Your task to perform on an android device: Open Chrome and go to settings Image 0: 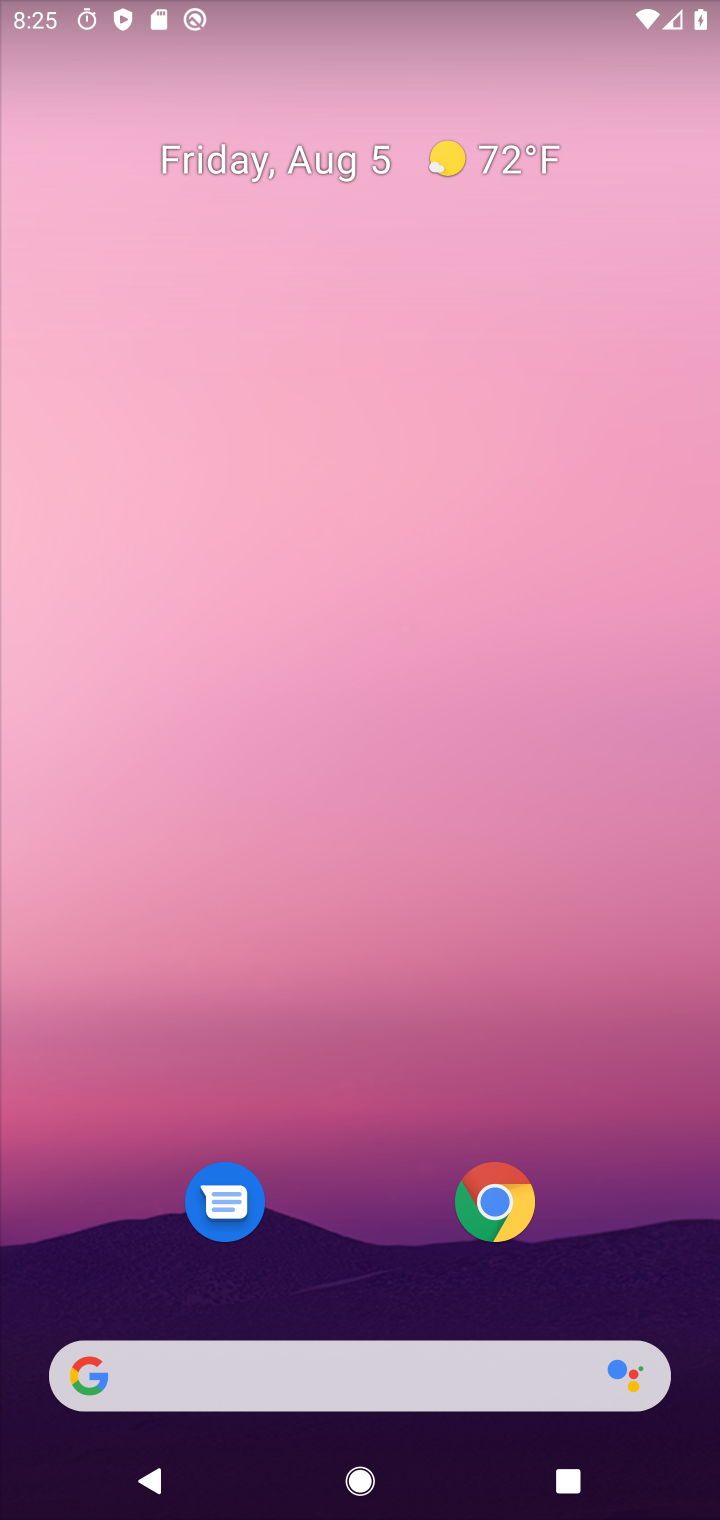
Step 0: click (503, 1196)
Your task to perform on an android device: Open Chrome and go to settings Image 1: 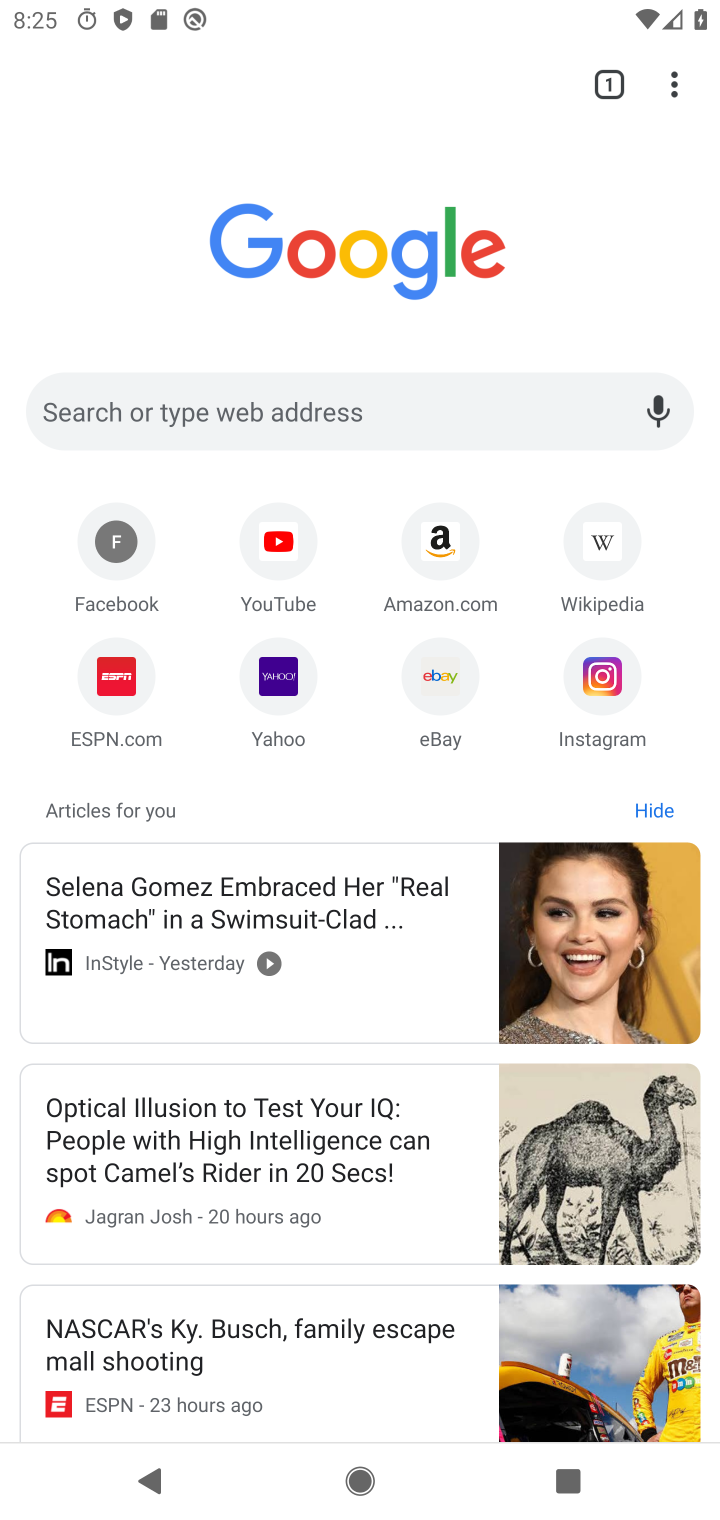
Step 1: click (668, 92)
Your task to perform on an android device: Open Chrome and go to settings Image 2: 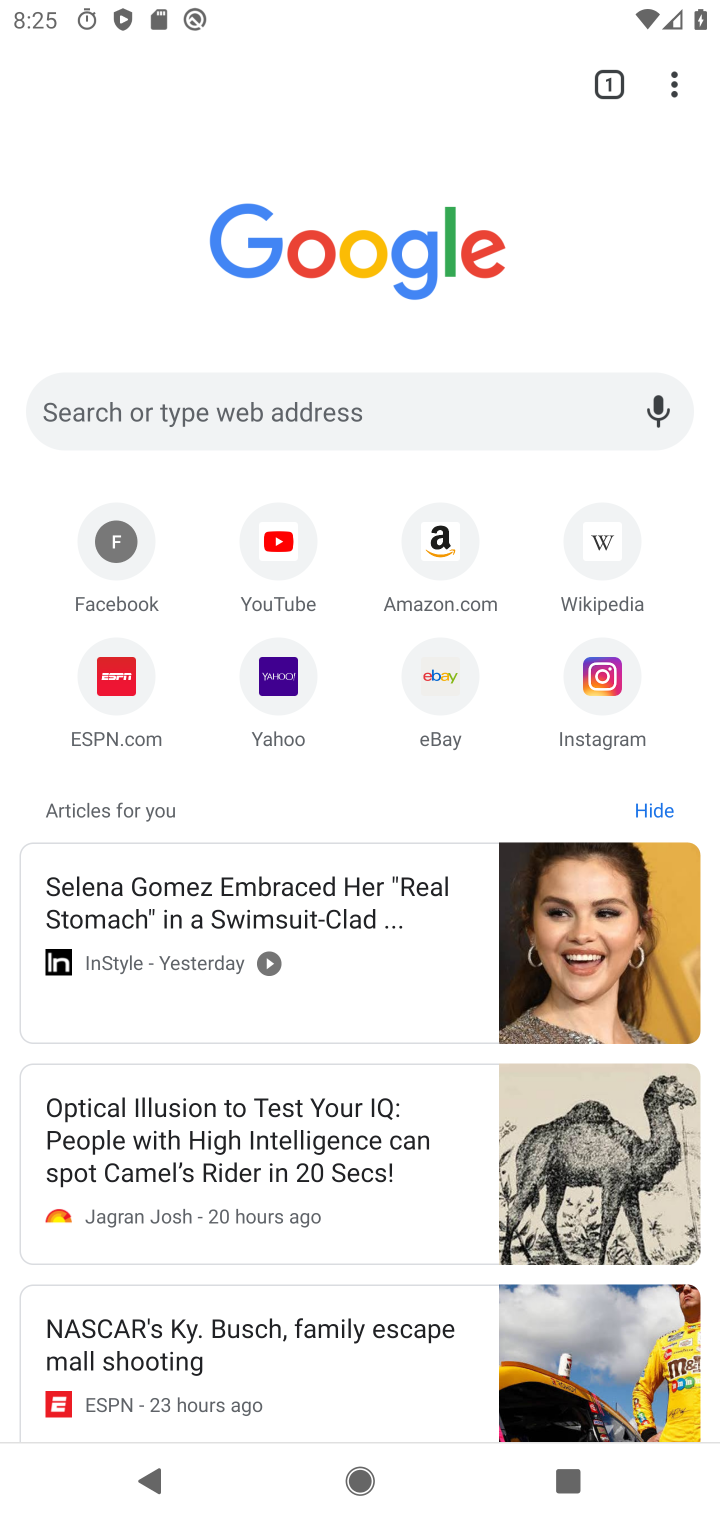
Step 2: click (699, 90)
Your task to perform on an android device: Open Chrome and go to settings Image 3: 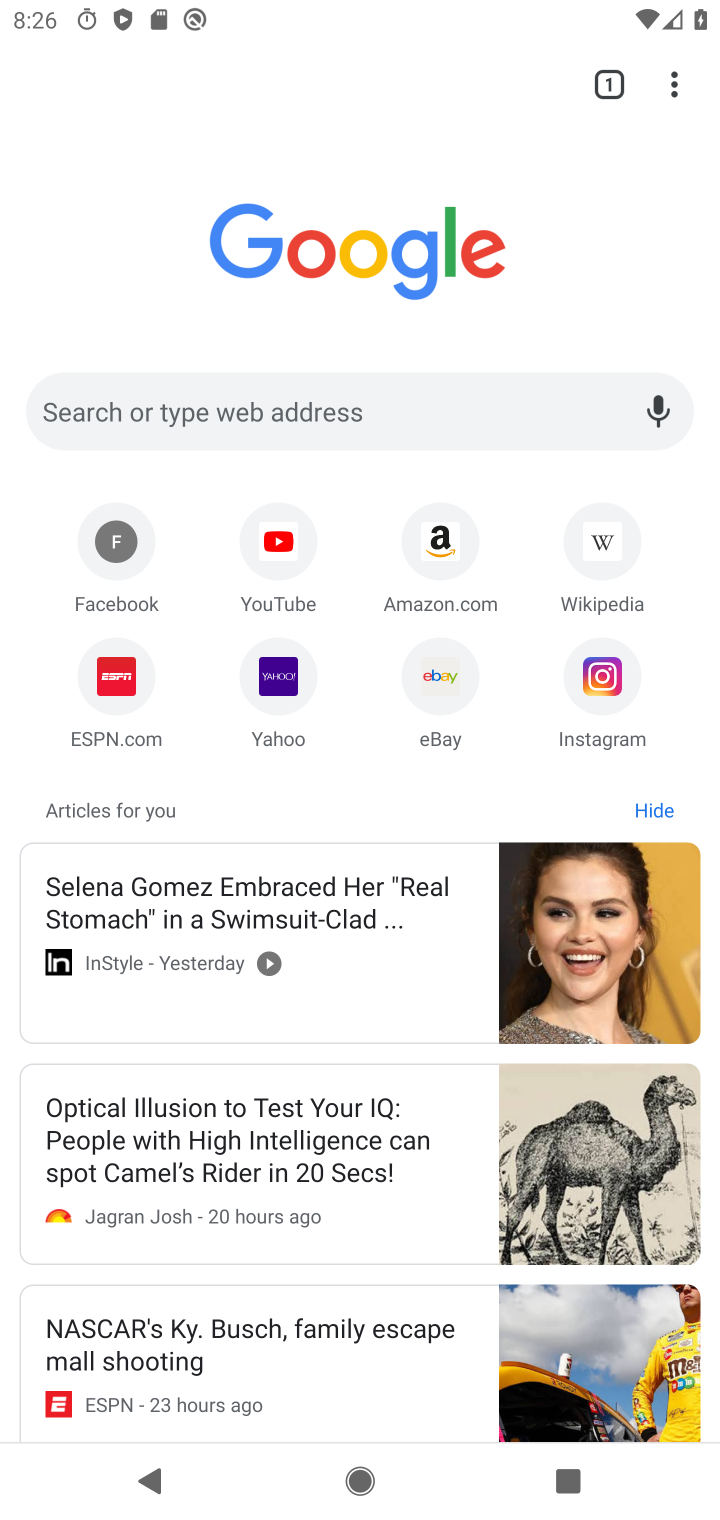
Step 3: click (708, 108)
Your task to perform on an android device: Open Chrome and go to settings Image 4: 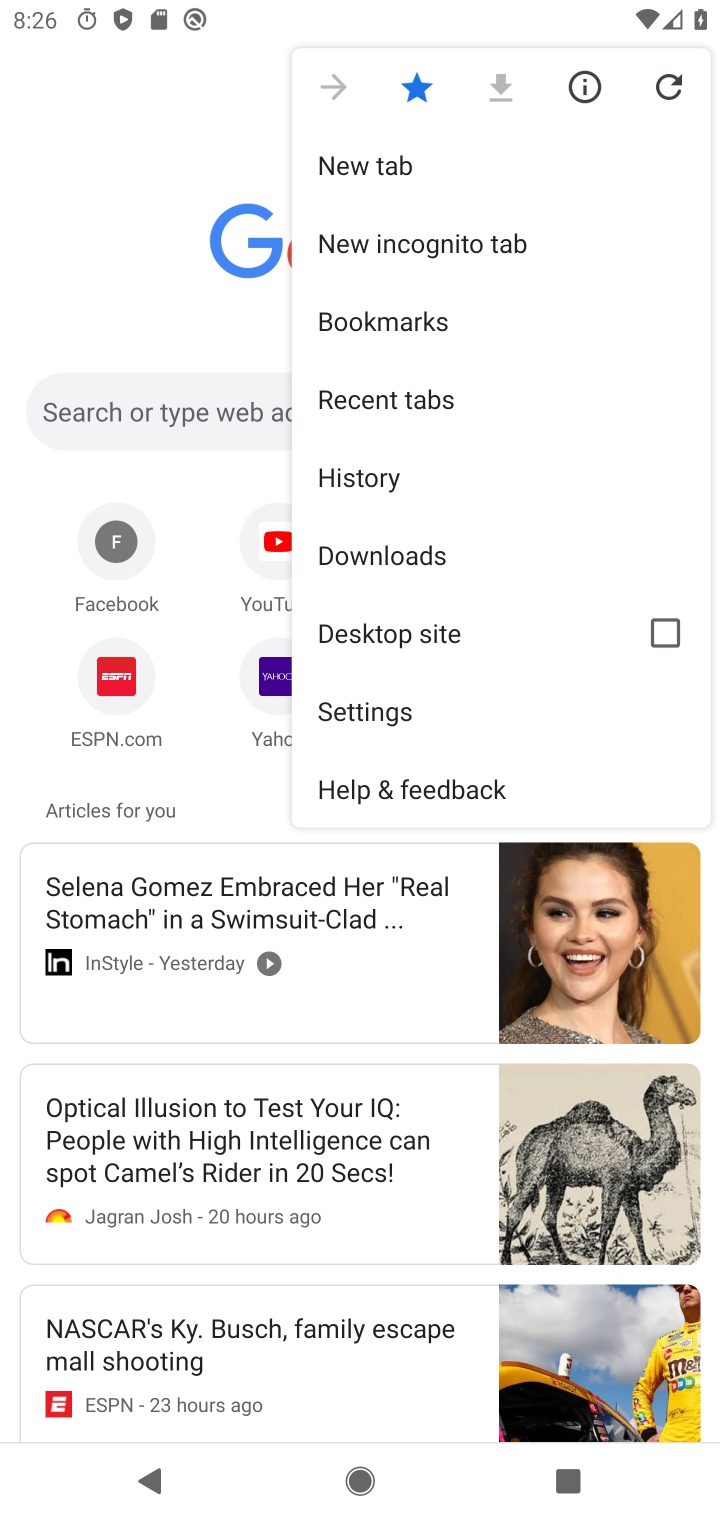
Step 4: click (360, 703)
Your task to perform on an android device: Open Chrome and go to settings Image 5: 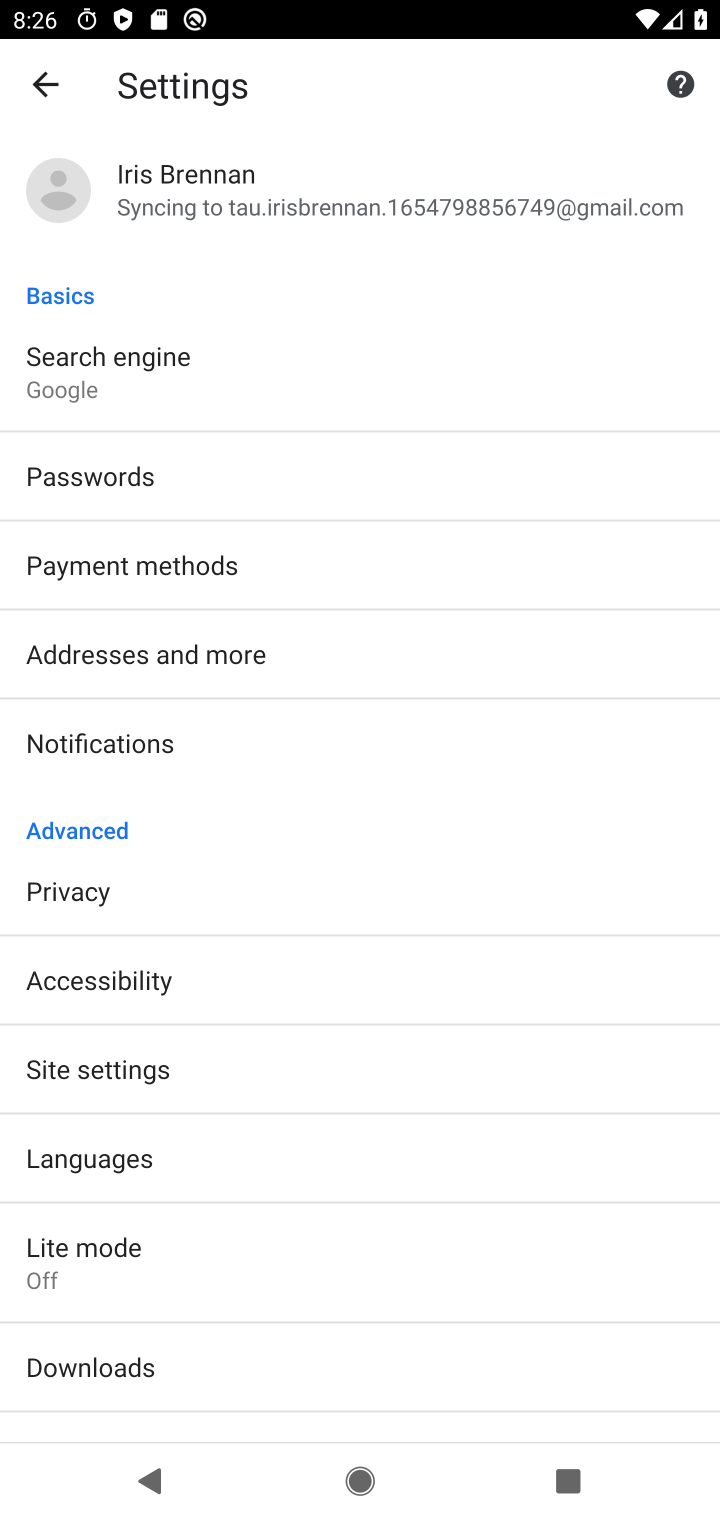
Step 5: task complete